Your task to perform on an android device: Go to Maps Image 0: 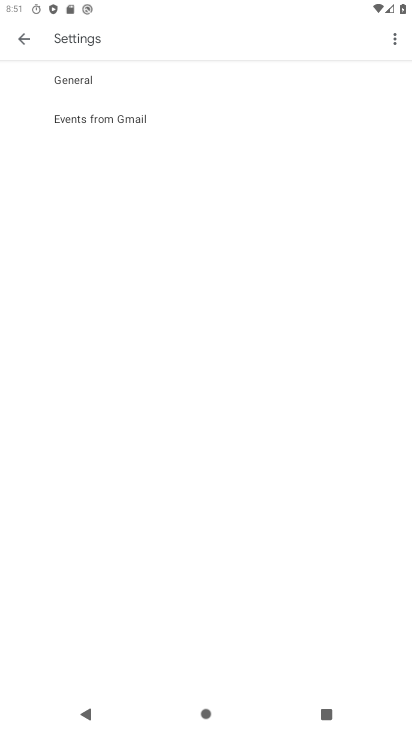
Step 0: click (18, 31)
Your task to perform on an android device: Go to Maps Image 1: 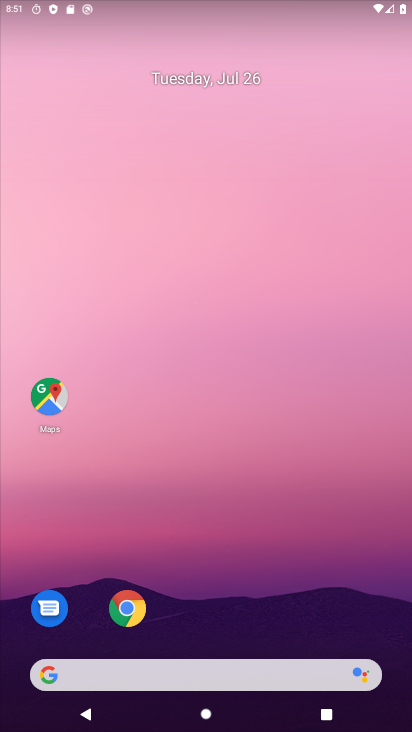
Step 1: click (65, 387)
Your task to perform on an android device: Go to Maps Image 2: 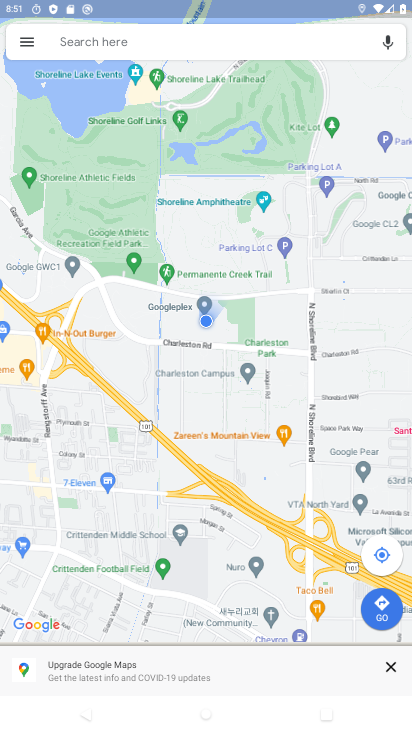
Step 2: task complete